Your task to perform on an android device: Is it going to rain tomorrow? Image 0: 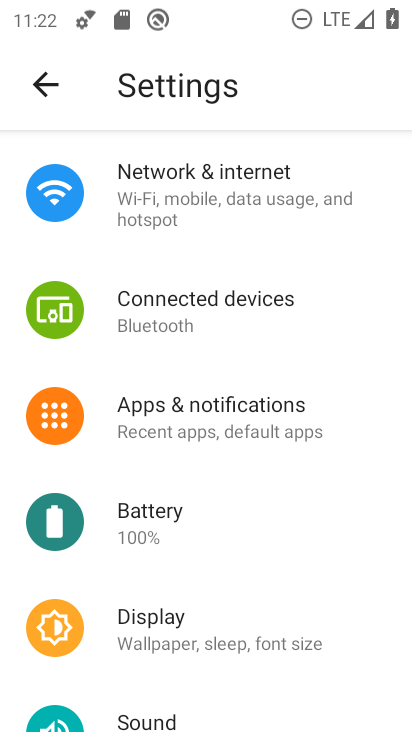
Step 0: press home button
Your task to perform on an android device: Is it going to rain tomorrow? Image 1: 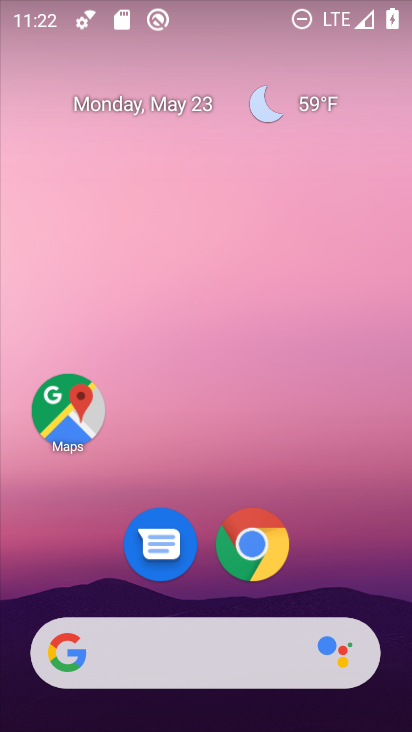
Step 1: click (314, 100)
Your task to perform on an android device: Is it going to rain tomorrow? Image 2: 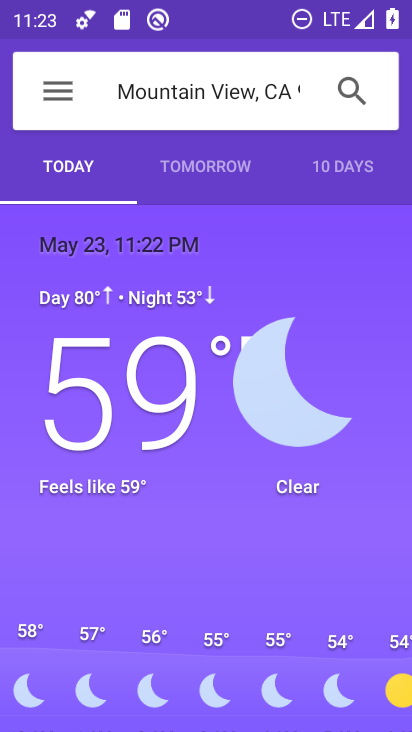
Step 2: click (217, 177)
Your task to perform on an android device: Is it going to rain tomorrow? Image 3: 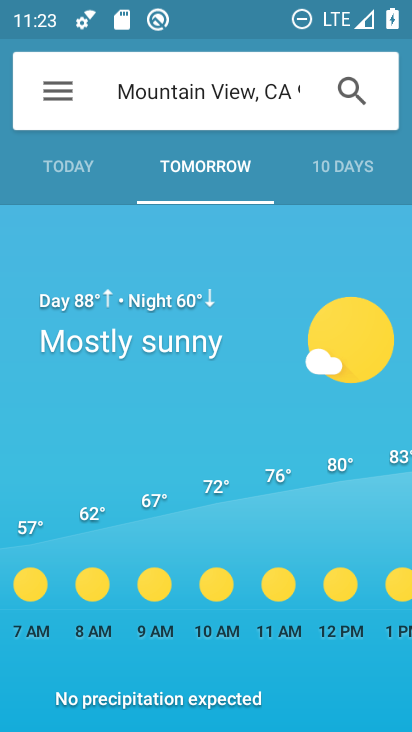
Step 3: task complete